Your task to perform on an android device: What's on my calendar tomorrow? Image 0: 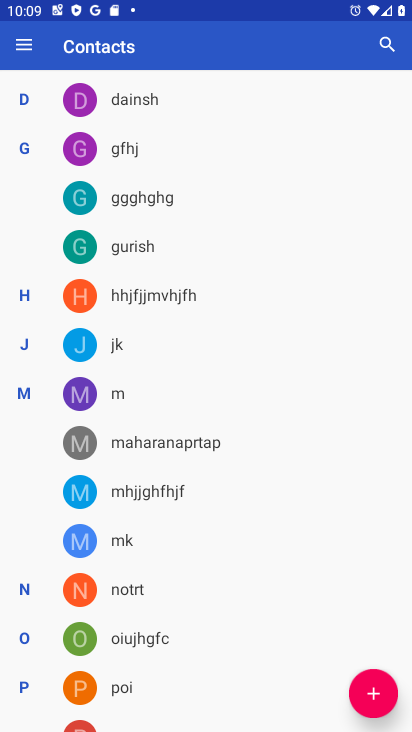
Step 0: press home button
Your task to perform on an android device: What's on my calendar tomorrow? Image 1: 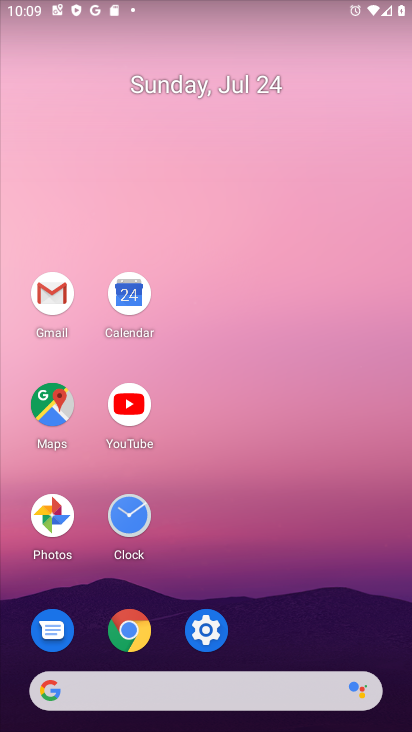
Step 1: click (126, 289)
Your task to perform on an android device: What's on my calendar tomorrow? Image 2: 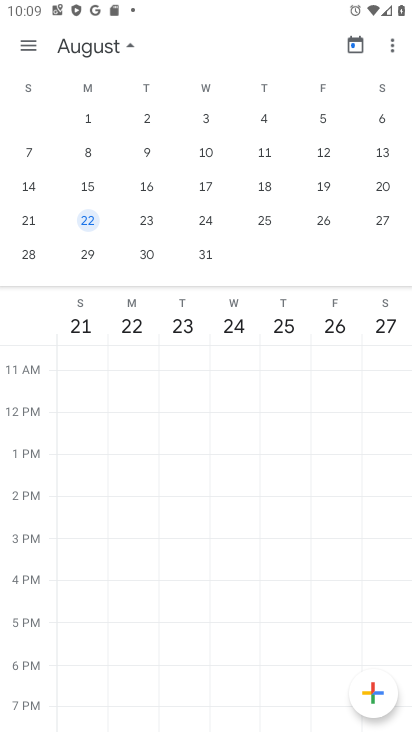
Step 2: drag from (35, 166) to (405, 204)
Your task to perform on an android device: What's on my calendar tomorrow? Image 3: 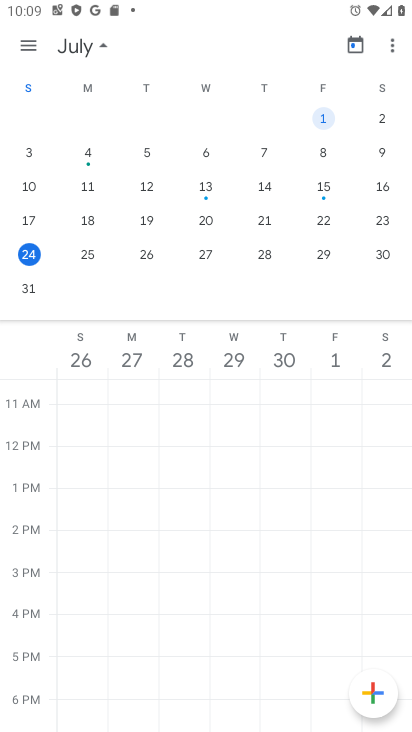
Step 3: click (91, 251)
Your task to perform on an android device: What's on my calendar tomorrow? Image 4: 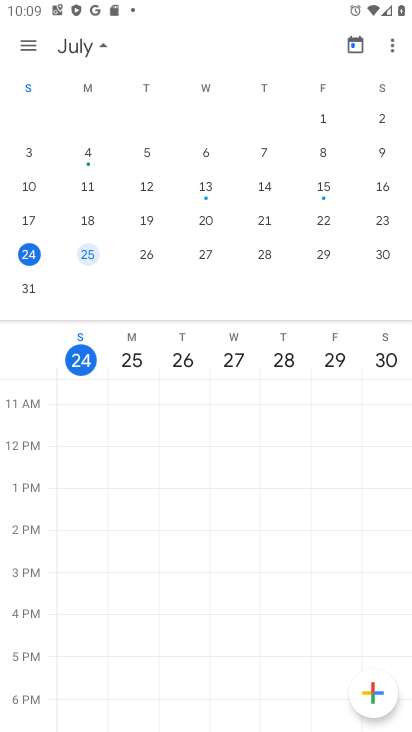
Step 4: click (91, 253)
Your task to perform on an android device: What's on my calendar tomorrow? Image 5: 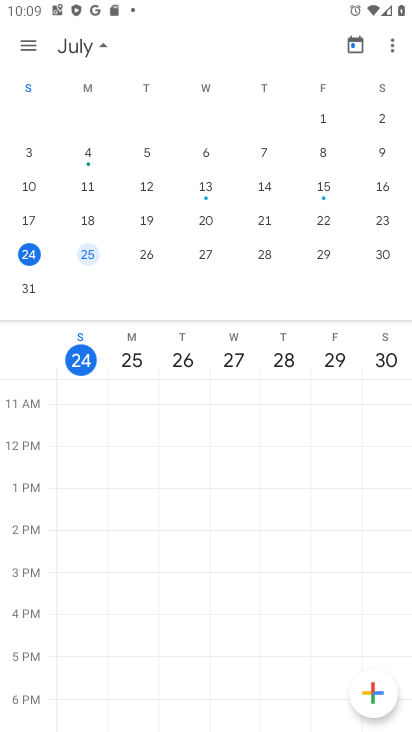
Step 5: click (131, 357)
Your task to perform on an android device: What's on my calendar tomorrow? Image 6: 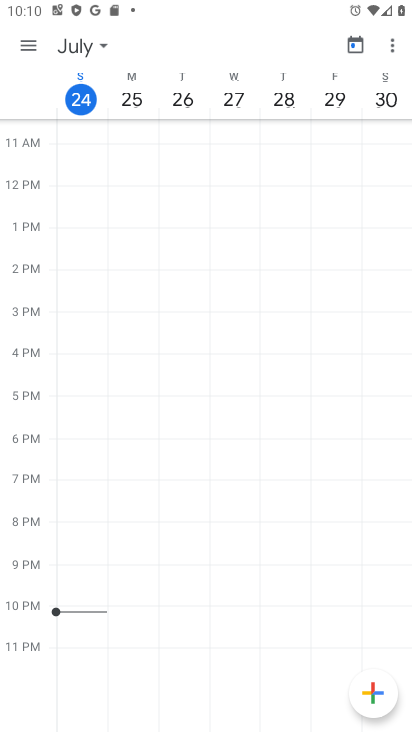
Step 6: click (132, 98)
Your task to perform on an android device: What's on my calendar tomorrow? Image 7: 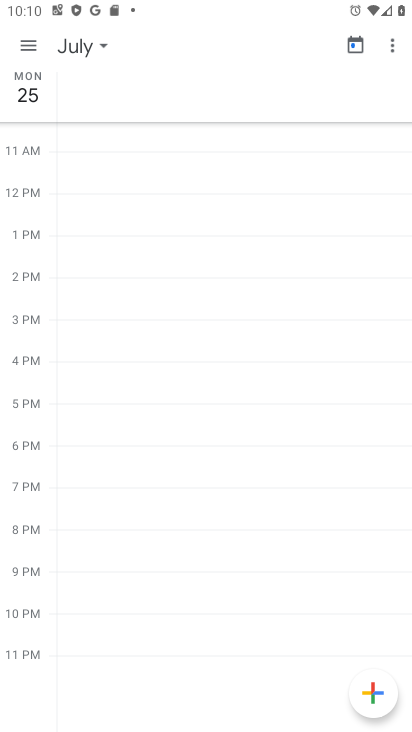
Step 7: task complete